Your task to perform on an android device: Open the web browser Image 0: 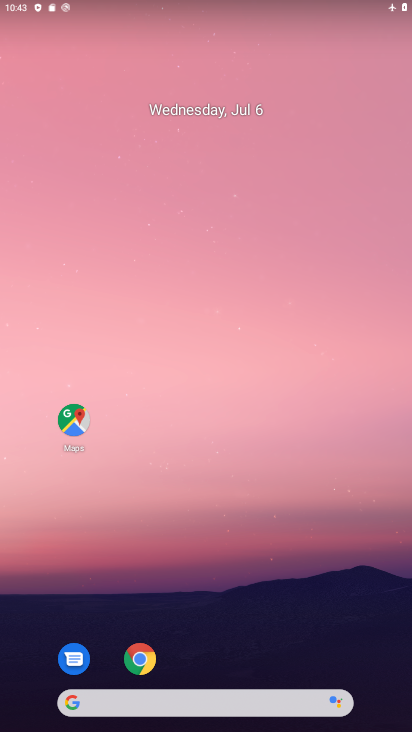
Step 0: drag from (204, 663) to (113, 138)
Your task to perform on an android device: Open the web browser Image 1: 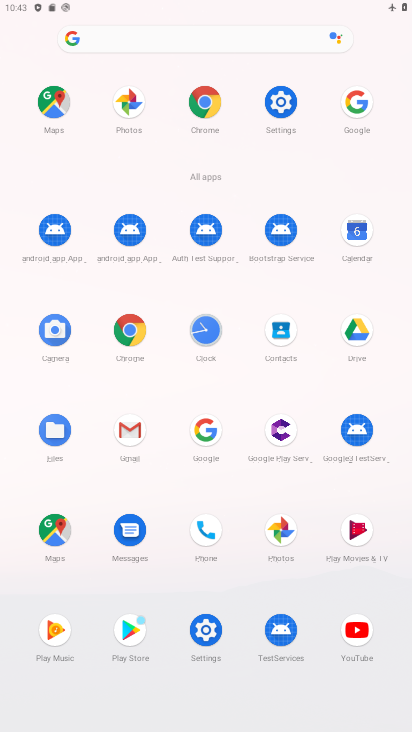
Step 1: click (210, 104)
Your task to perform on an android device: Open the web browser Image 2: 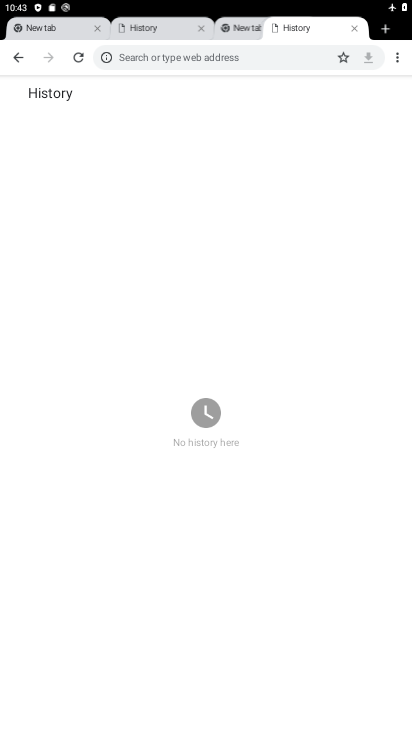
Step 2: click (11, 54)
Your task to perform on an android device: Open the web browser Image 3: 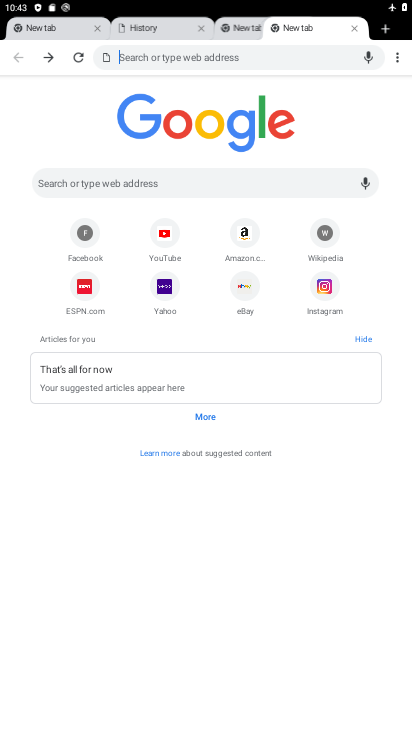
Step 3: task complete